Your task to perform on an android device: toggle improve location accuracy Image 0: 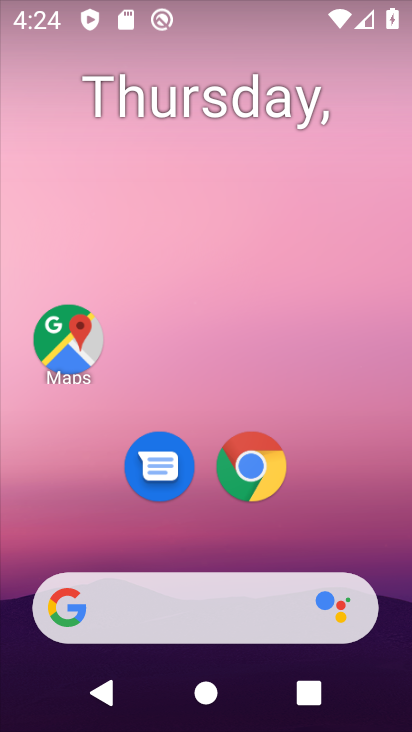
Step 0: drag from (200, 554) to (223, 23)
Your task to perform on an android device: toggle improve location accuracy Image 1: 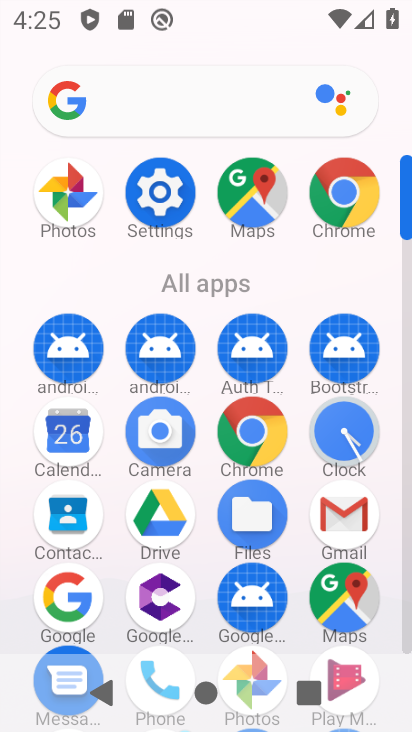
Step 1: click (157, 187)
Your task to perform on an android device: toggle improve location accuracy Image 2: 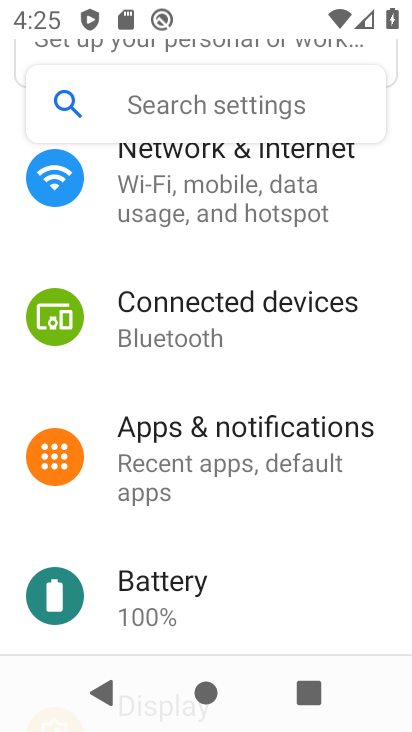
Step 2: drag from (219, 634) to (228, 95)
Your task to perform on an android device: toggle improve location accuracy Image 3: 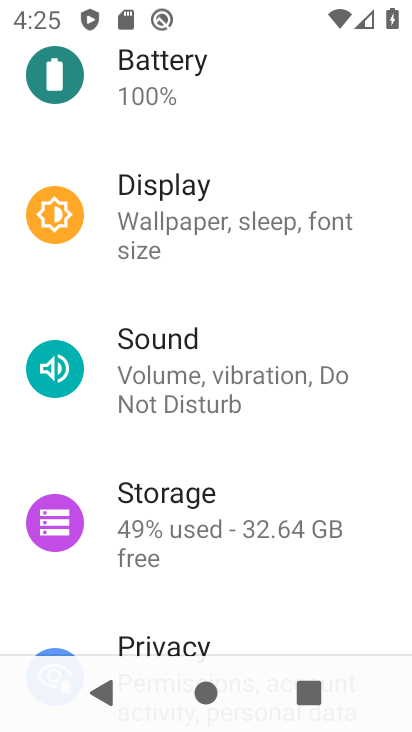
Step 3: drag from (224, 626) to (235, 80)
Your task to perform on an android device: toggle improve location accuracy Image 4: 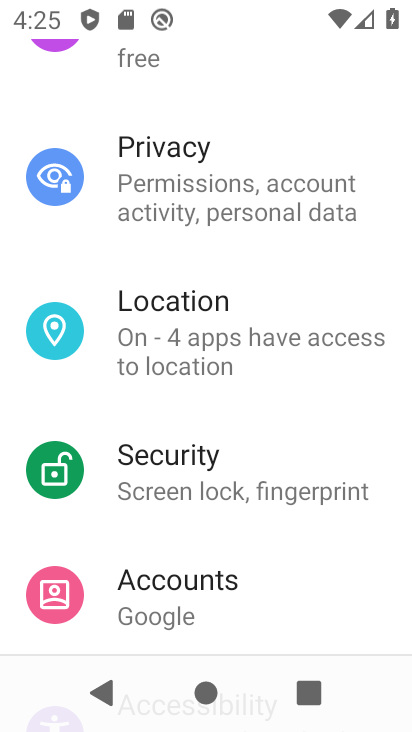
Step 4: click (245, 298)
Your task to perform on an android device: toggle improve location accuracy Image 5: 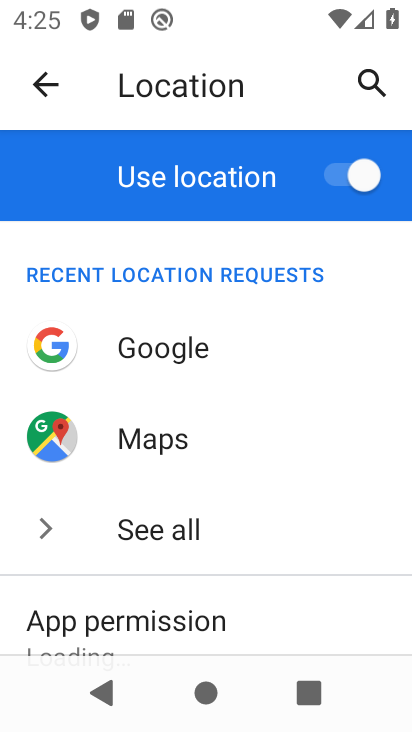
Step 5: drag from (249, 626) to (253, 112)
Your task to perform on an android device: toggle improve location accuracy Image 6: 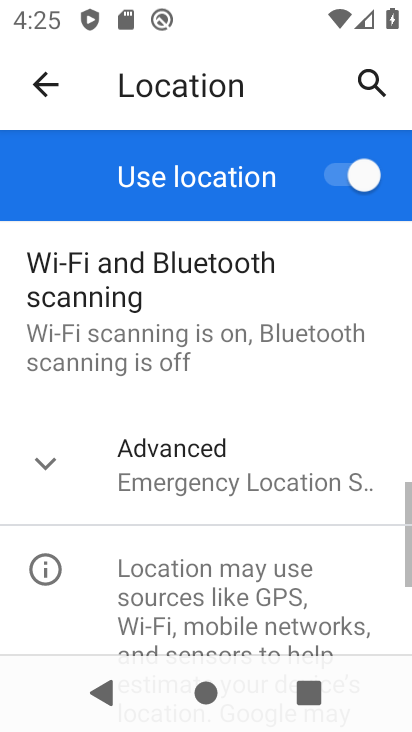
Step 6: click (50, 454)
Your task to perform on an android device: toggle improve location accuracy Image 7: 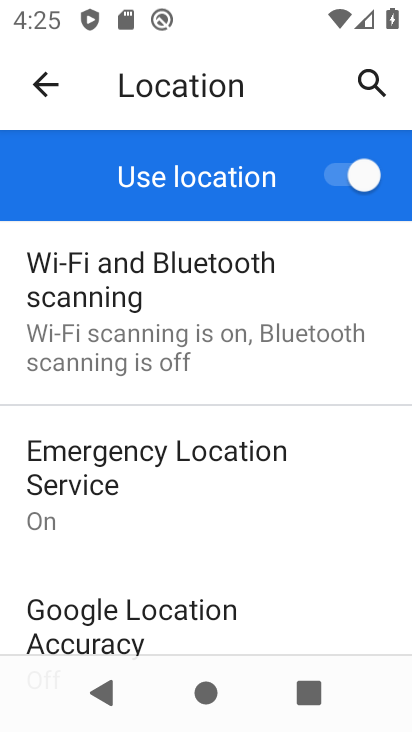
Step 7: click (179, 626)
Your task to perform on an android device: toggle improve location accuracy Image 8: 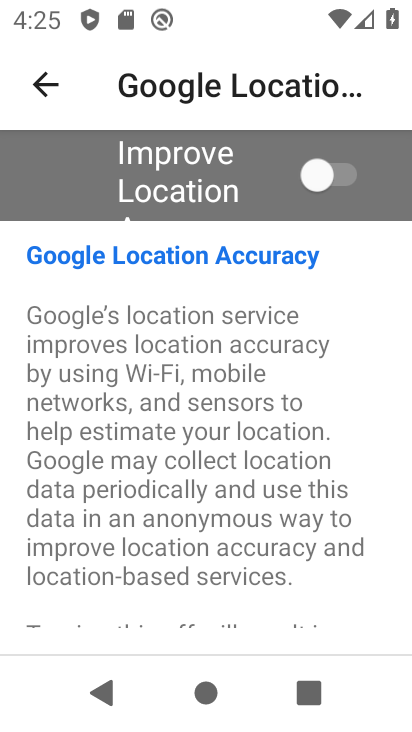
Step 8: click (339, 179)
Your task to perform on an android device: toggle improve location accuracy Image 9: 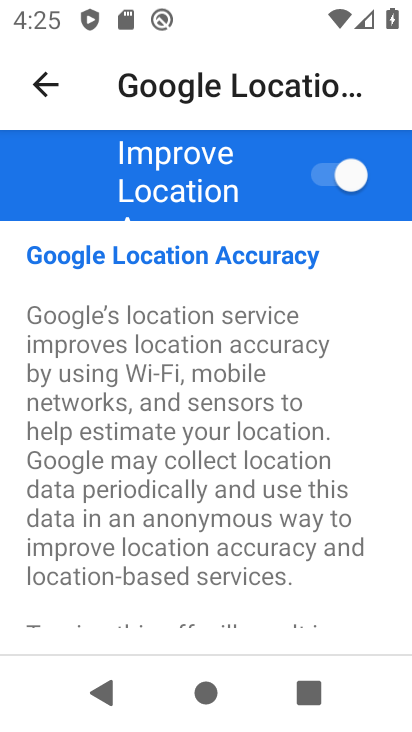
Step 9: task complete